Your task to perform on an android device: turn off sleep mode Image 0: 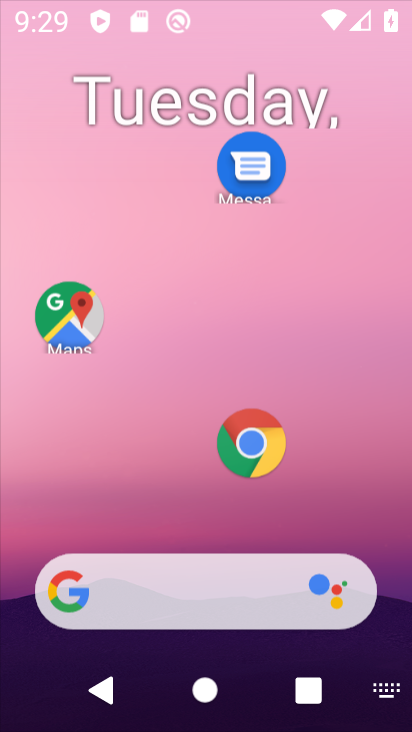
Step 0: drag from (173, 330) to (202, 91)
Your task to perform on an android device: turn off sleep mode Image 1: 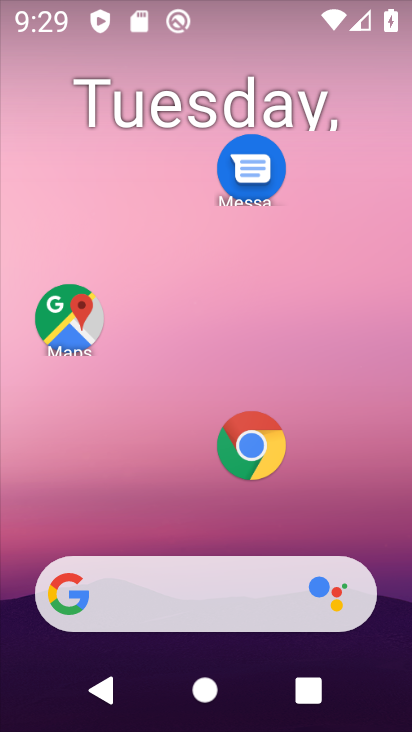
Step 1: drag from (172, 216) to (170, 66)
Your task to perform on an android device: turn off sleep mode Image 2: 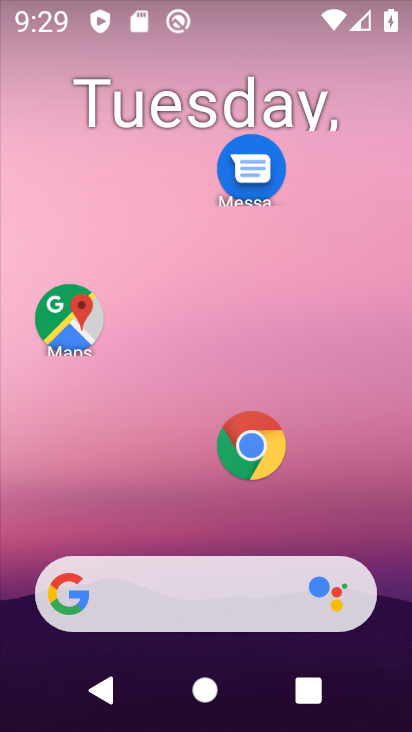
Step 2: drag from (179, 446) to (229, 11)
Your task to perform on an android device: turn off sleep mode Image 3: 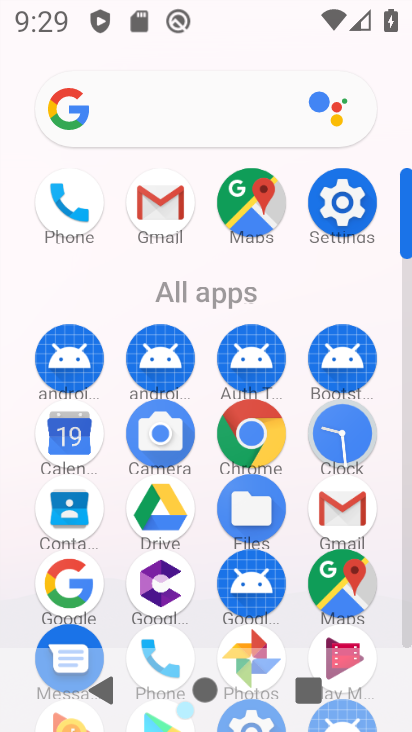
Step 3: click (349, 212)
Your task to perform on an android device: turn off sleep mode Image 4: 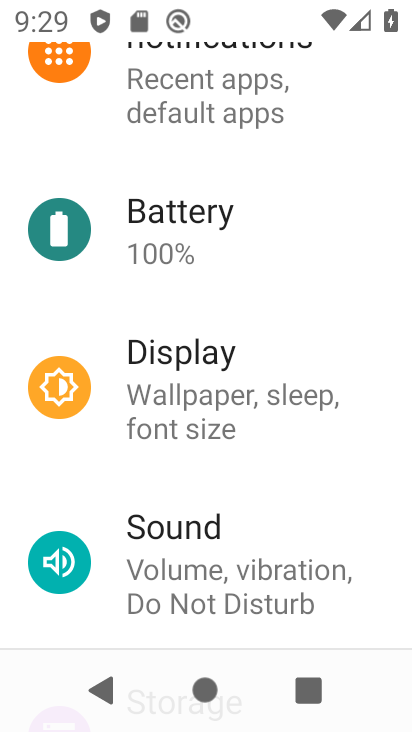
Step 4: drag from (281, 134) to (242, 643)
Your task to perform on an android device: turn off sleep mode Image 5: 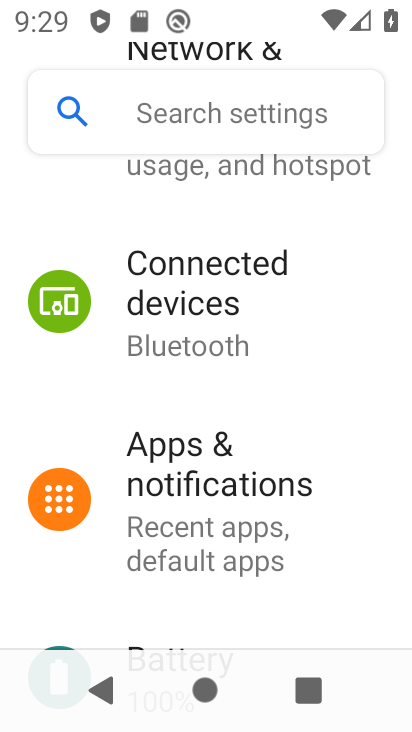
Step 5: click (206, 98)
Your task to perform on an android device: turn off sleep mode Image 6: 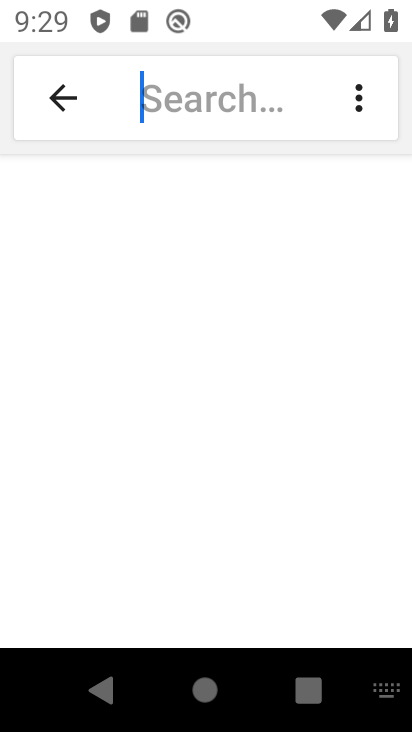
Step 6: type "sleep mode"
Your task to perform on an android device: turn off sleep mode Image 7: 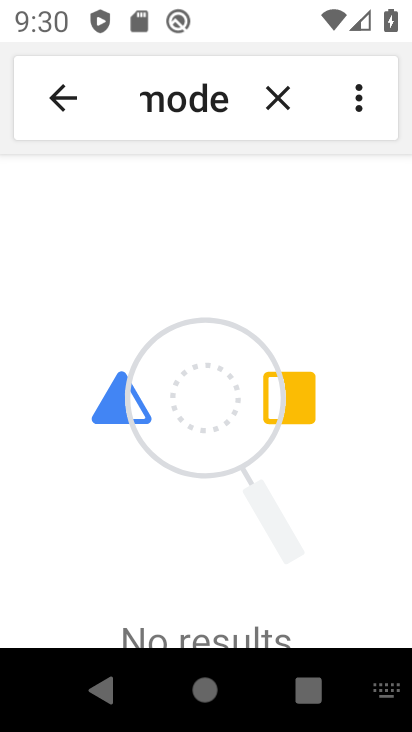
Step 7: task complete